Your task to perform on an android device: Set the phone to "Do not disturb". Image 0: 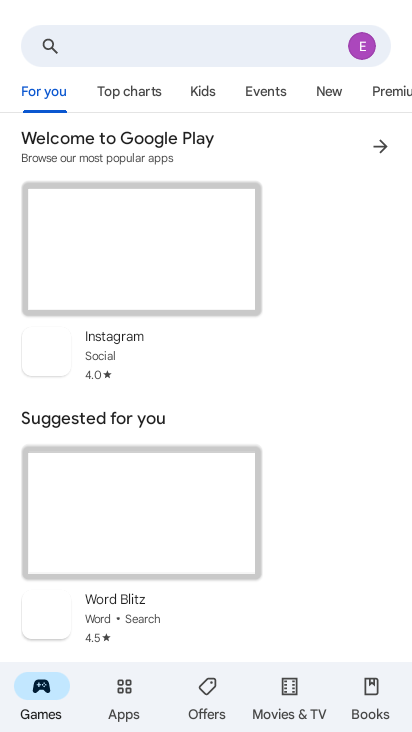
Step 0: click (250, 254)
Your task to perform on an android device: Set the phone to "Do not disturb". Image 1: 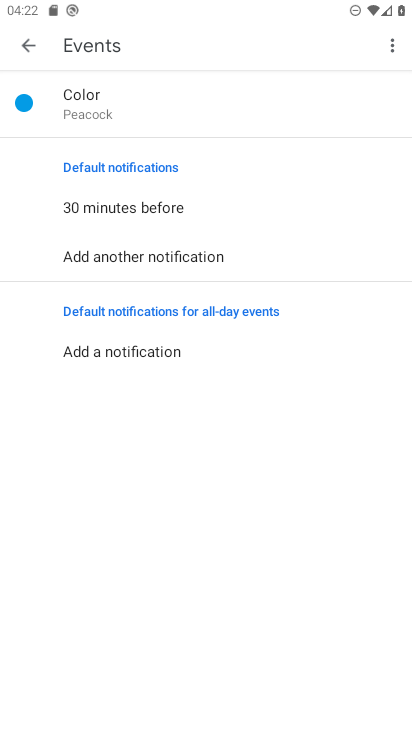
Step 1: click (33, 48)
Your task to perform on an android device: Set the phone to "Do not disturb". Image 2: 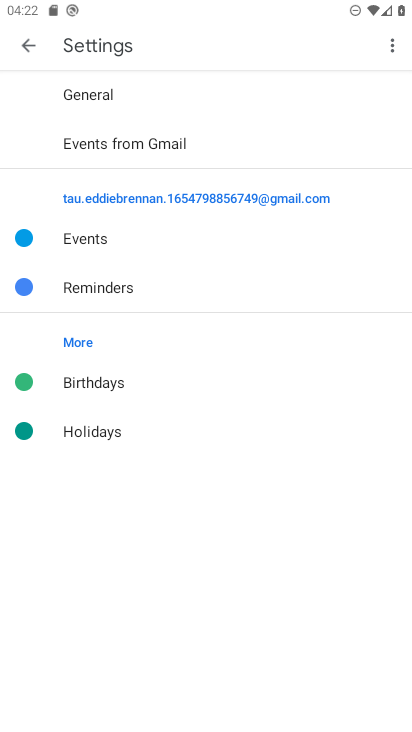
Step 2: press back button
Your task to perform on an android device: Set the phone to "Do not disturb". Image 3: 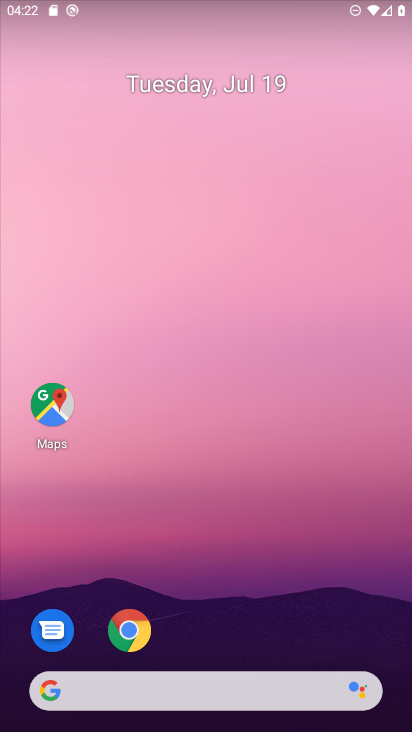
Step 3: drag from (206, 633) to (174, 233)
Your task to perform on an android device: Set the phone to "Do not disturb". Image 4: 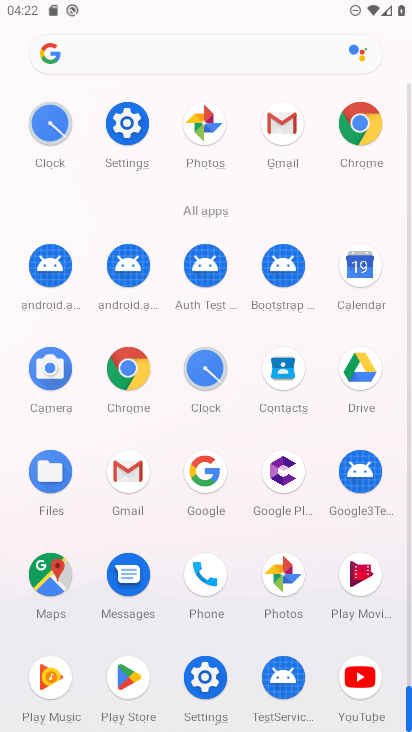
Step 4: click (131, 138)
Your task to perform on an android device: Set the phone to "Do not disturb". Image 5: 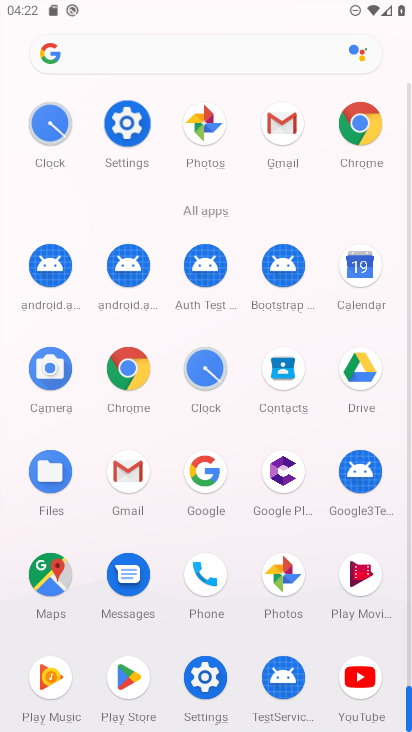
Step 5: click (130, 129)
Your task to perform on an android device: Set the phone to "Do not disturb". Image 6: 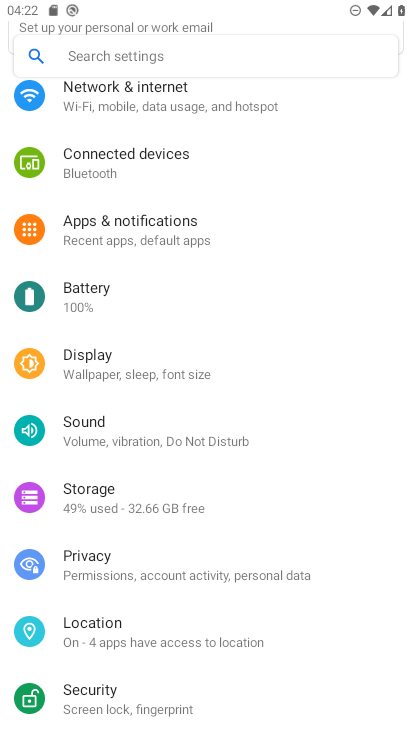
Step 6: click (108, 438)
Your task to perform on an android device: Set the phone to "Do not disturb". Image 7: 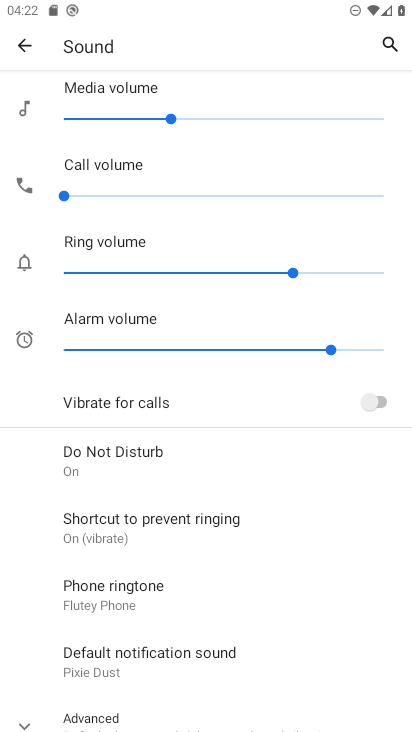
Step 7: click (90, 457)
Your task to perform on an android device: Set the phone to "Do not disturb". Image 8: 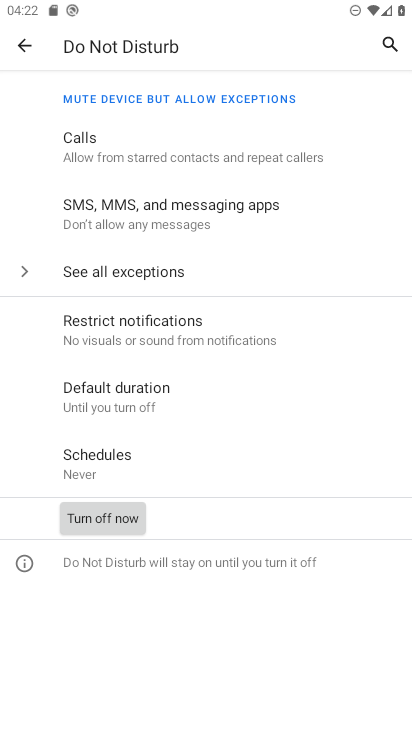
Step 8: click (98, 522)
Your task to perform on an android device: Set the phone to "Do not disturb". Image 9: 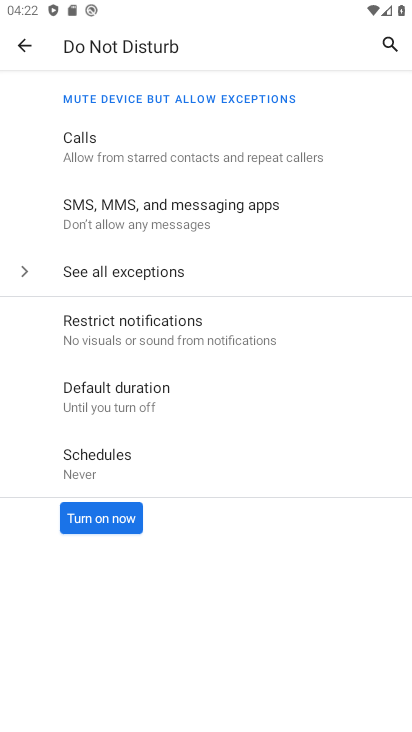
Step 9: task complete